Your task to perform on an android device: open chrome and create a bookmark for the current page Image 0: 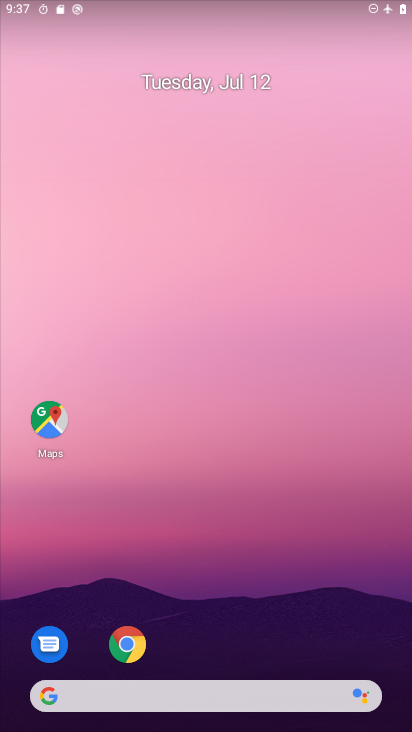
Step 0: click (124, 644)
Your task to perform on an android device: open chrome and create a bookmark for the current page Image 1: 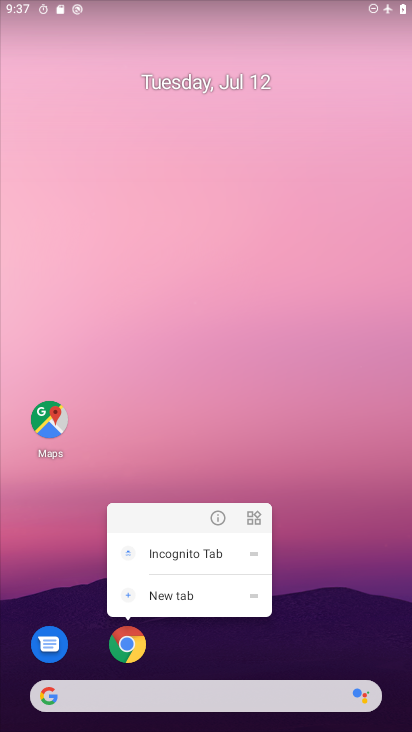
Step 1: click (126, 662)
Your task to perform on an android device: open chrome and create a bookmark for the current page Image 2: 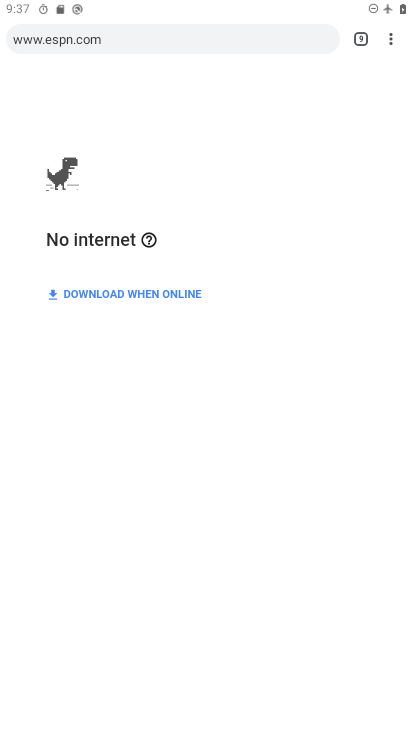
Step 2: task complete